Your task to perform on an android device: Go to battery settings Image 0: 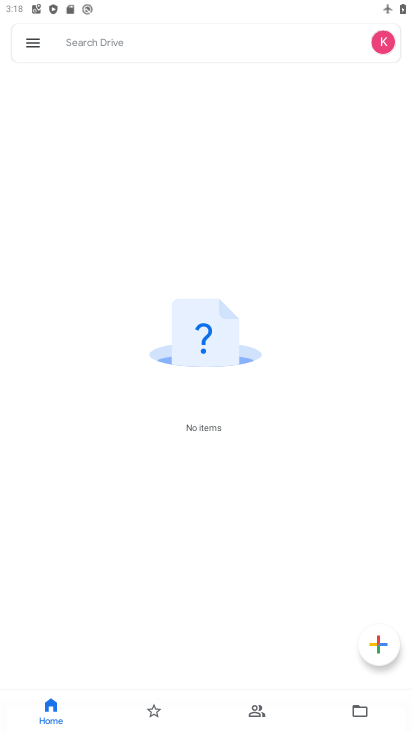
Step 0: press home button
Your task to perform on an android device: Go to battery settings Image 1: 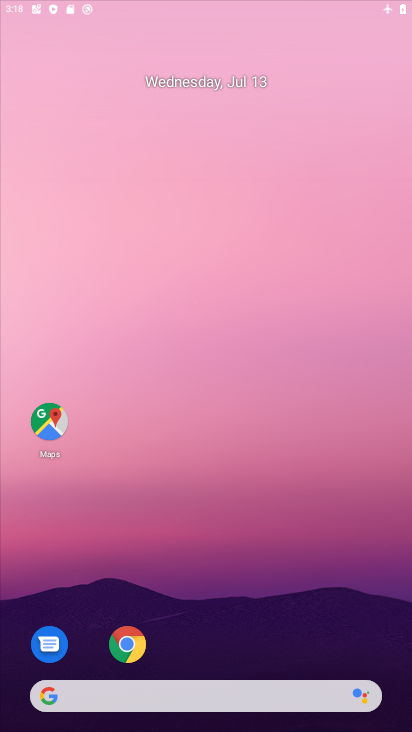
Step 1: drag from (343, 624) to (274, 134)
Your task to perform on an android device: Go to battery settings Image 2: 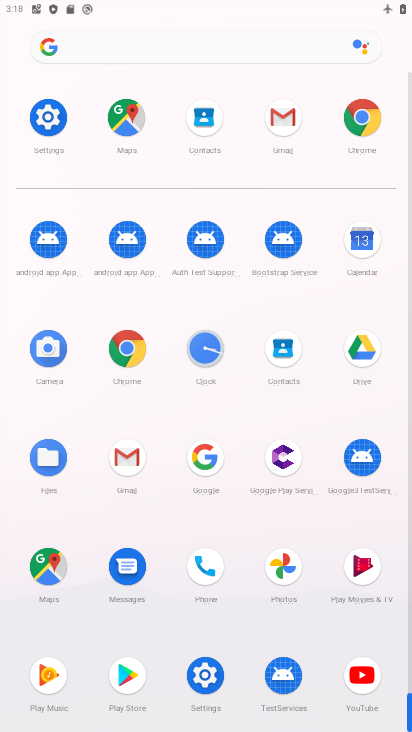
Step 2: click (56, 116)
Your task to perform on an android device: Go to battery settings Image 3: 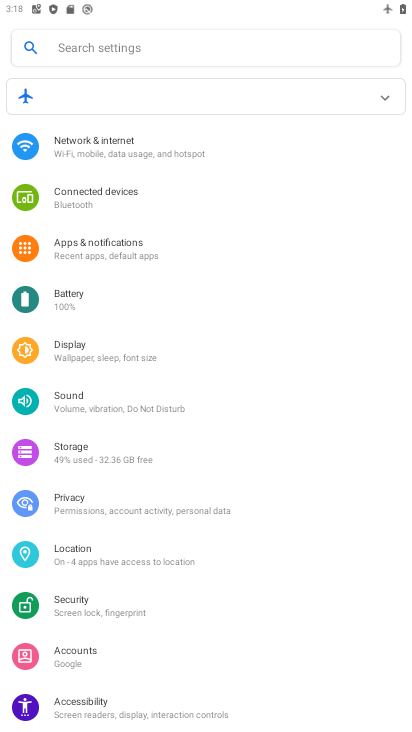
Step 3: click (76, 299)
Your task to perform on an android device: Go to battery settings Image 4: 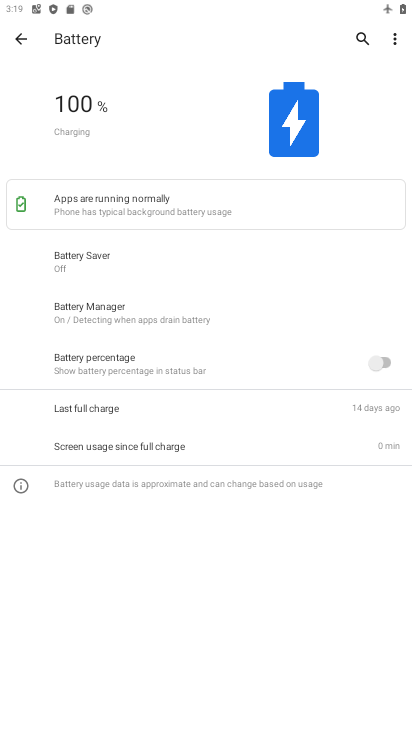
Step 4: task complete